Your task to perform on an android device: turn off wifi Image 0: 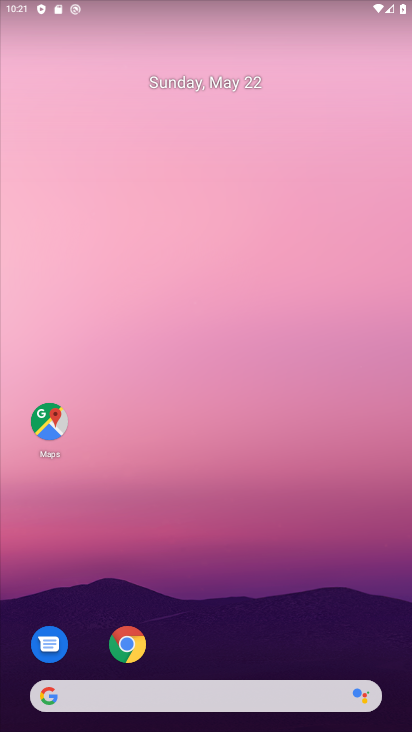
Step 0: drag from (204, 592) to (199, 0)
Your task to perform on an android device: turn off wifi Image 1: 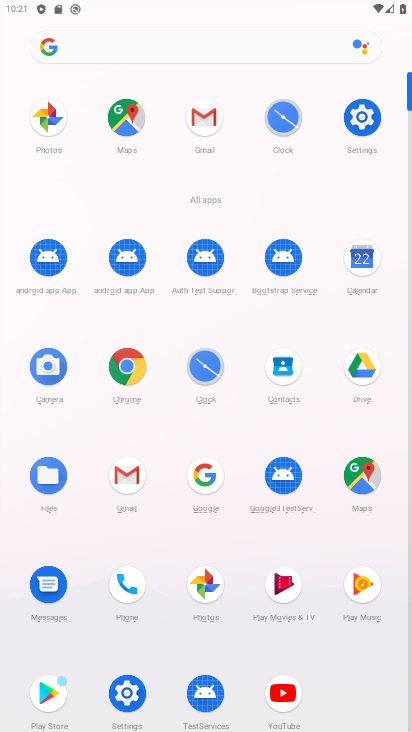
Step 1: click (356, 128)
Your task to perform on an android device: turn off wifi Image 2: 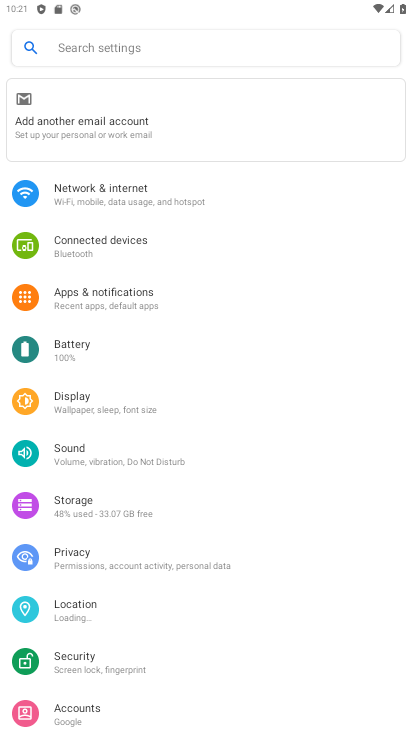
Step 2: click (110, 205)
Your task to perform on an android device: turn off wifi Image 3: 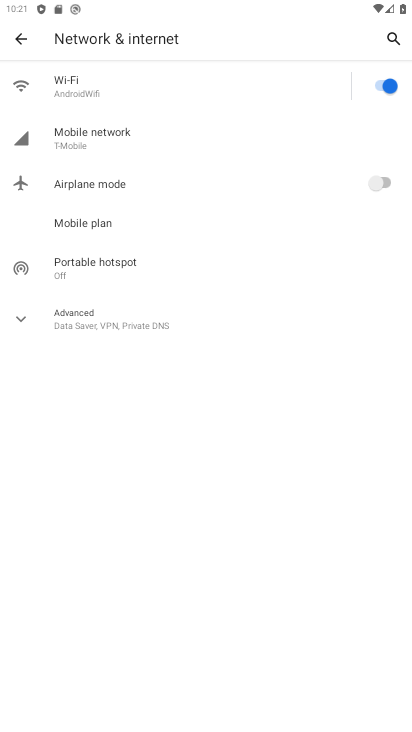
Step 3: click (378, 94)
Your task to perform on an android device: turn off wifi Image 4: 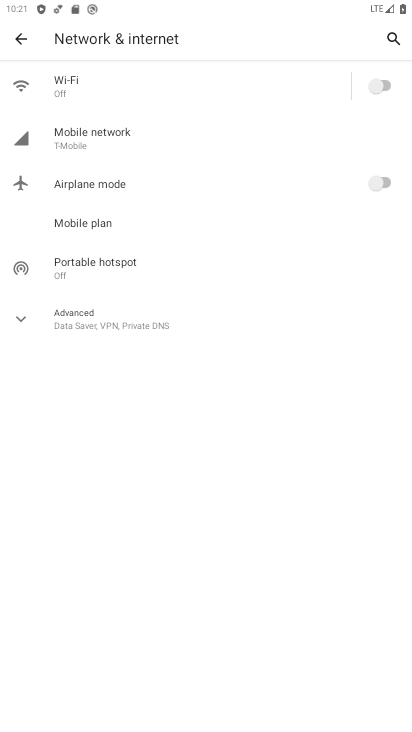
Step 4: task complete